Your task to perform on an android device: Open the phone app and click the voicemail tab. Image 0: 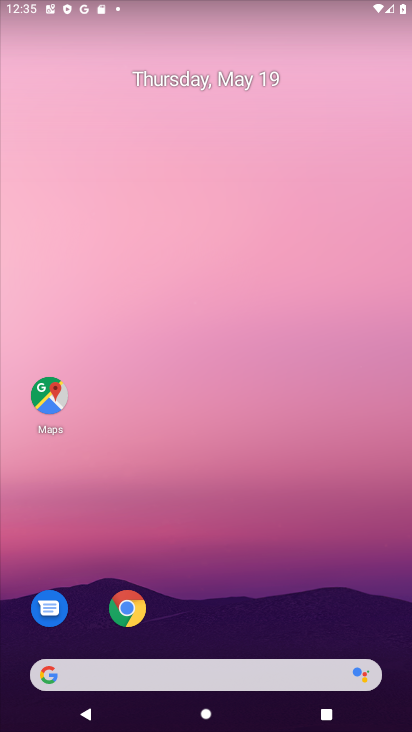
Step 0: drag from (249, 603) to (292, 306)
Your task to perform on an android device: Open the phone app and click the voicemail tab. Image 1: 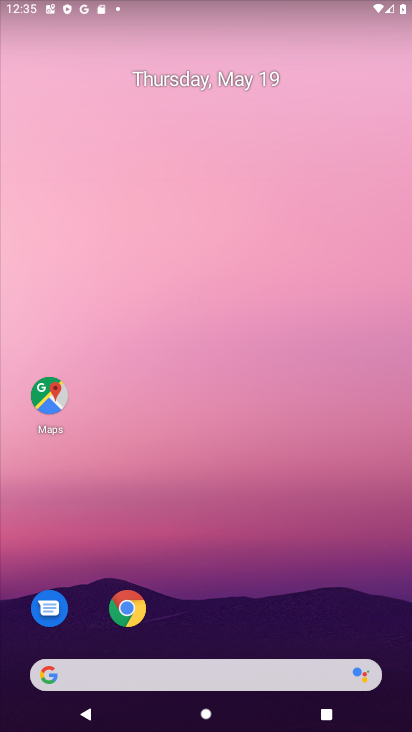
Step 1: drag from (222, 618) to (243, 224)
Your task to perform on an android device: Open the phone app and click the voicemail tab. Image 2: 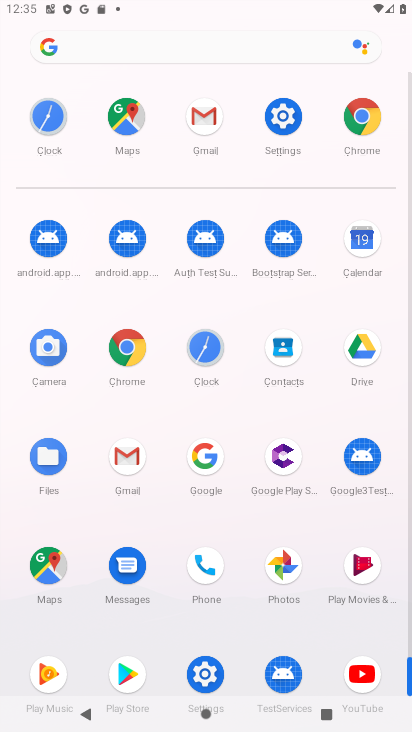
Step 2: click (208, 561)
Your task to perform on an android device: Open the phone app and click the voicemail tab. Image 3: 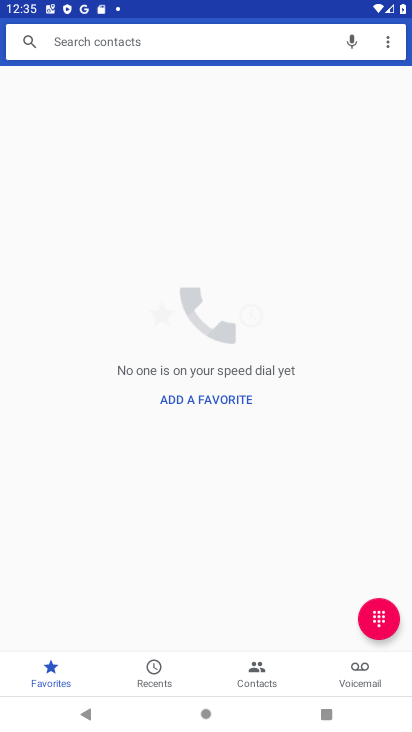
Step 3: click (358, 674)
Your task to perform on an android device: Open the phone app and click the voicemail tab. Image 4: 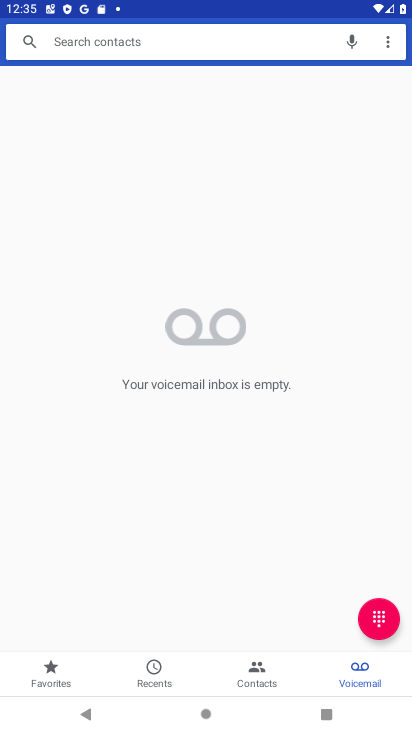
Step 4: click (362, 667)
Your task to perform on an android device: Open the phone app and click the voicemail tab. Image 5: 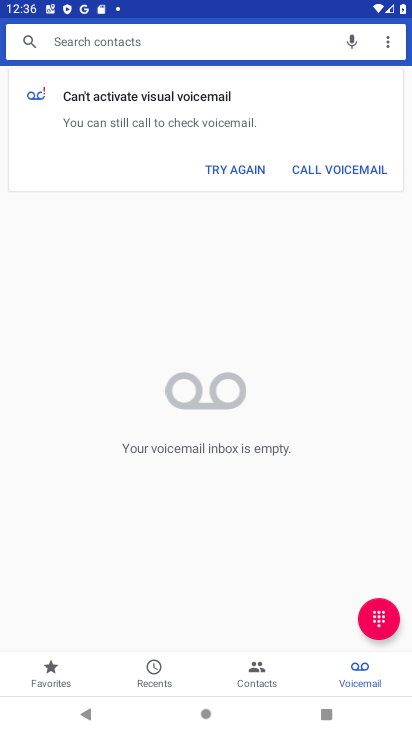
Step 5: task complete